Your task to perform on an android device: Is it going to rain this weekend? Image 0: 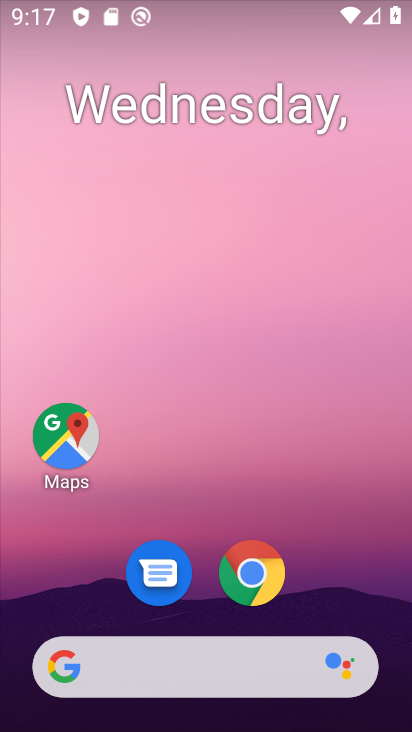
Step 0: click (259, 558)
Your task to perform on an android device: Is it going to rain this weekend? Image 1: 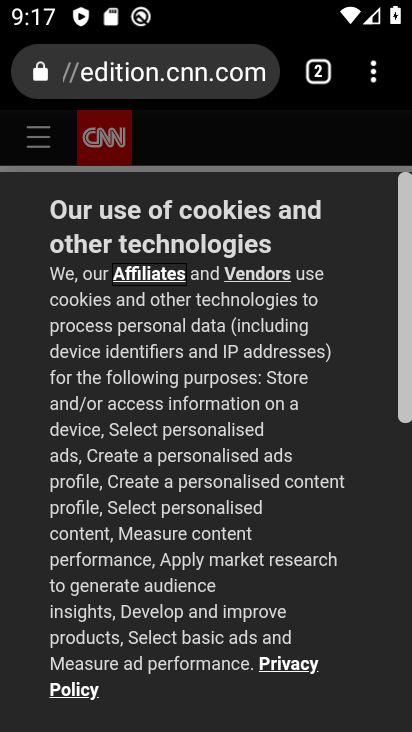
Step 1: click (368, 76)
Your task to perform on an android device: Is it going to rain this weekend? Image 2: 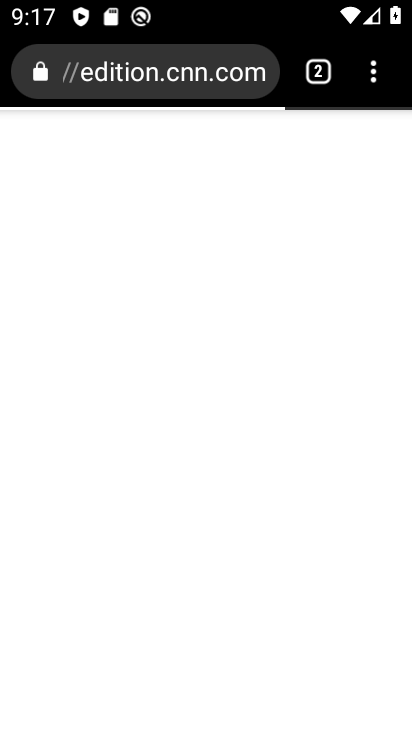
Step 2: click (358, 71)
Your task to perform on an android device: Is it going to rain this weekend? Image 3: 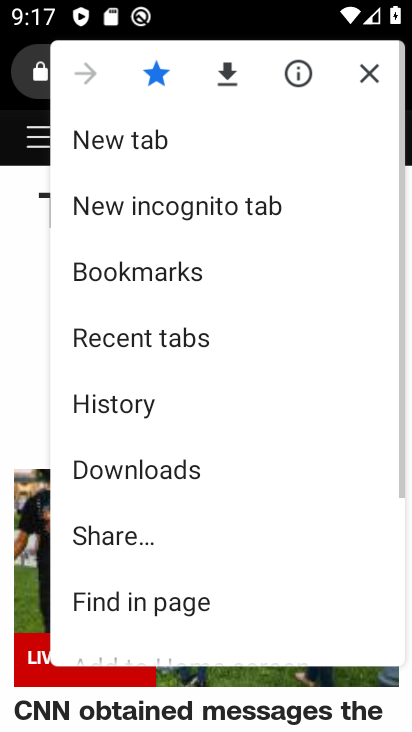
Step 3: click (161, 135)
Your task to perform on an android device: Is it going to rain this weekend? Image 4: 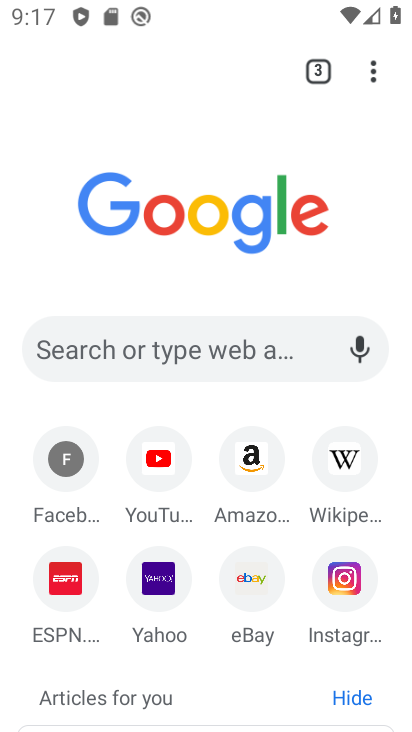
Step 4: click (190, 348)
Your task to perform on an android device: Is it going to rain this weekend? Image 5: 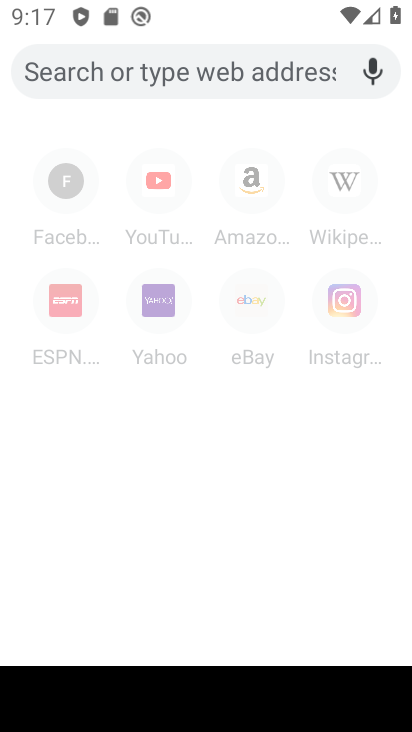
Step 5: type "Is it going to rain this weekend?"
Your task to perform on an android device: Is it going to rain this weekend? Image 6: 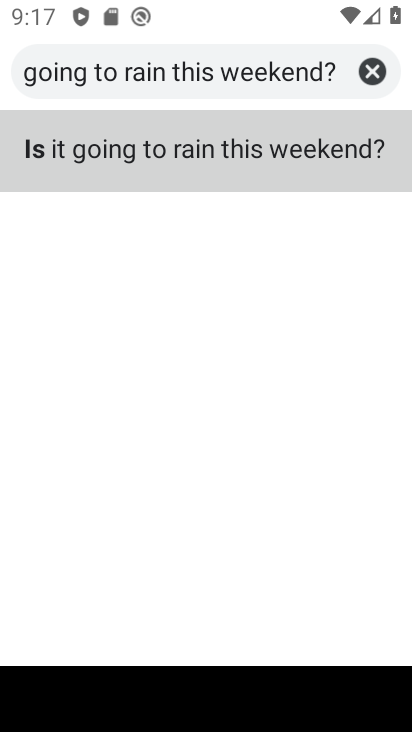
Step 6: click (270, 152)
Your task to perform on an android device: Is it going to rain this weekend? Image 7: 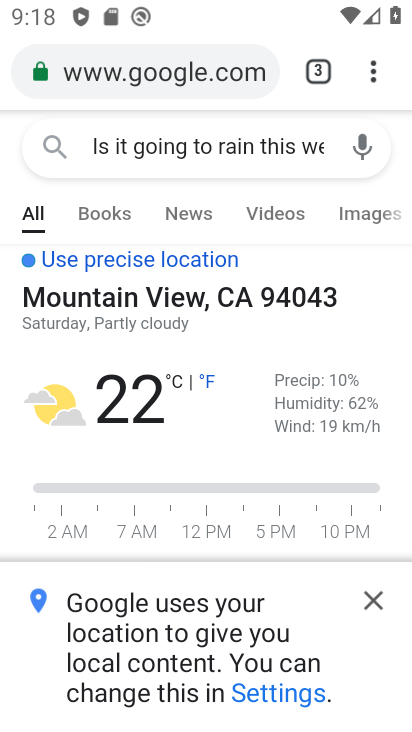
Step 7: task complete